Your task to perform on an android device: open chrome privacy settings Image 0: 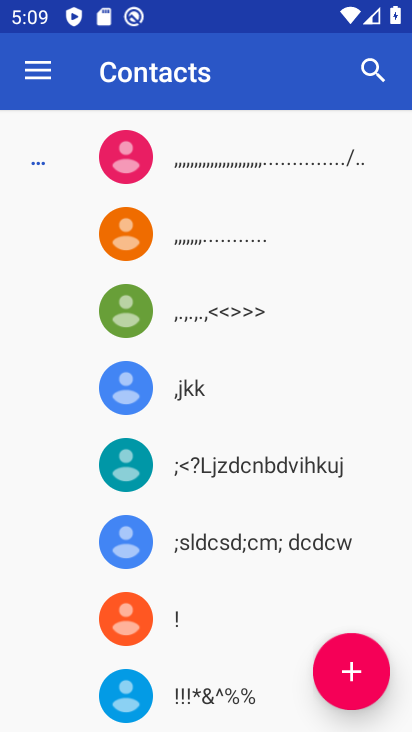
Step 0: press home button
Your task to perform on an android device: open chrome privacy settings Image 1: 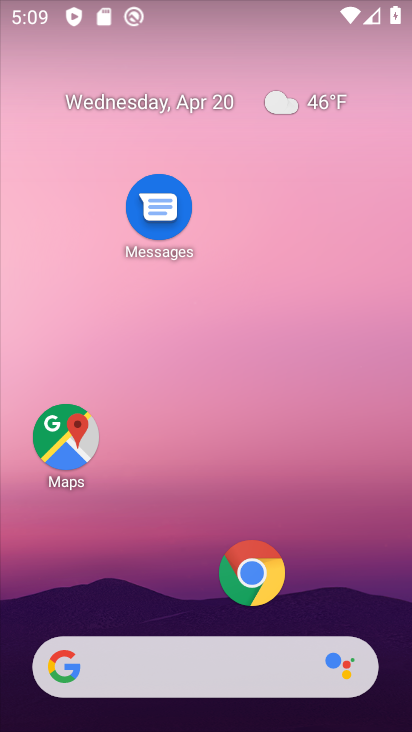
Step 1: click (236, 563)
Your task to perform on an android device: open chrome privacy settings Image 2: 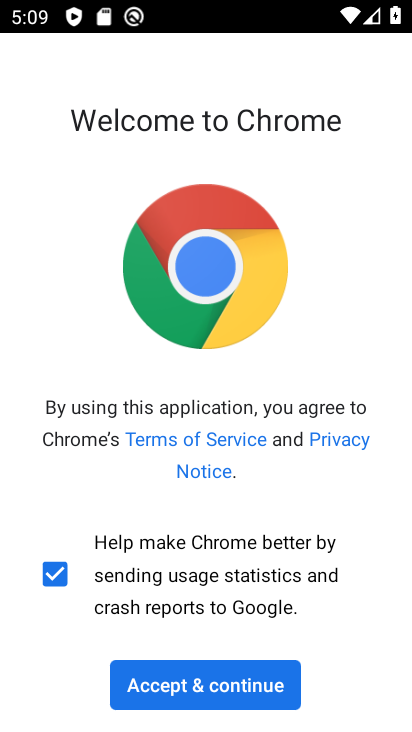
Step 2: click (233, 686)
Your task to perform on an android device: open chrome privacy settings Image 3: 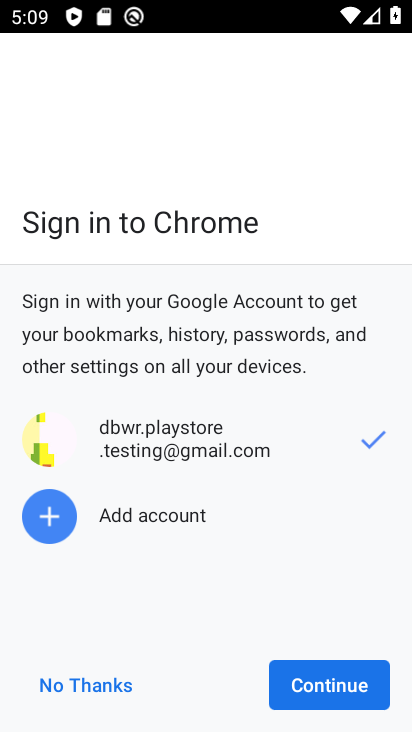
Step 3: click (343, 679)
Your task to perform on an android device: open chrome privacy settings Image 4: 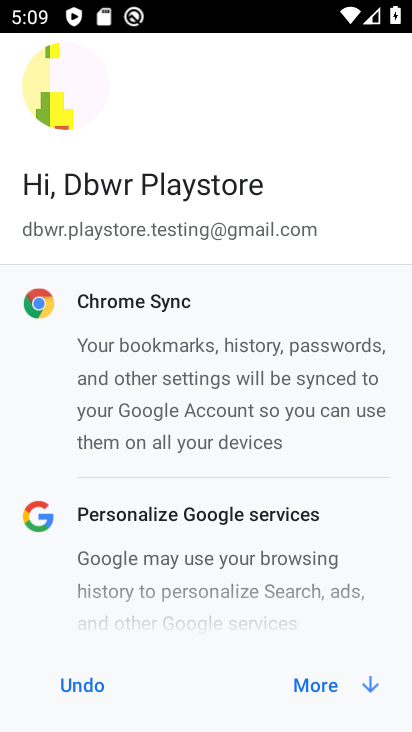
Step 4: click (333, 675)
Your task to perform on an android device: open chrome privacy settings Image 5: 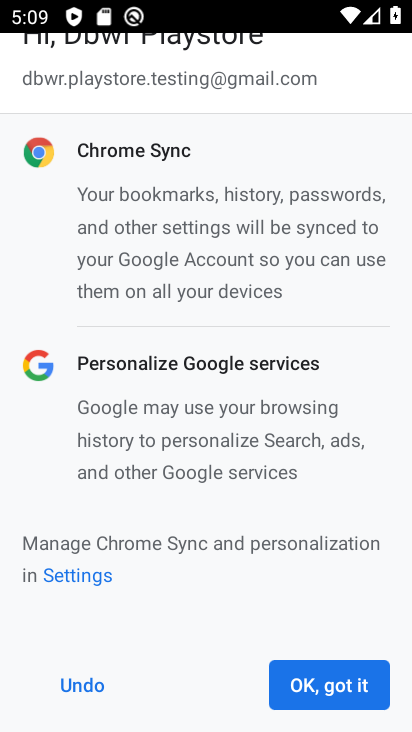
Step 5: click (341, 683)
Your task to perform on an android device: open chrome privacy settings Image 6: 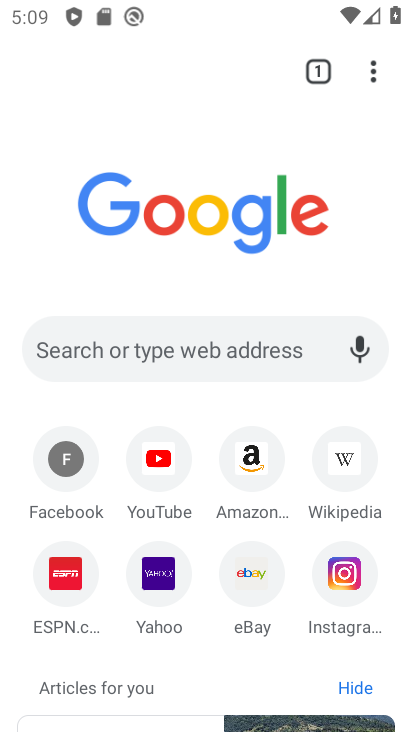
Step 6: click (369, 69)
Your task to perform on an android device: open chrome privacy settings Image 7: 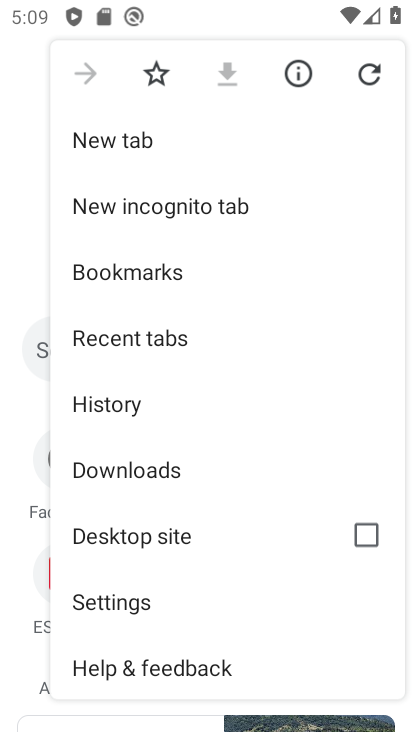
Step 7: click (167, 603)
Your task to perform on an android device: open chrome privacy settings Image 8: 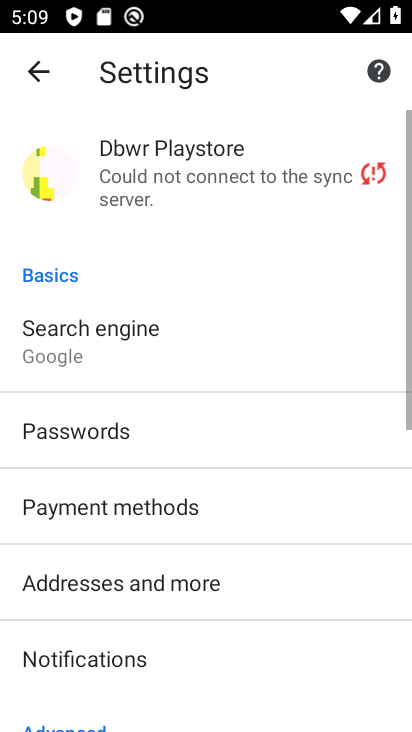
Step 8: drag from (242, 636) to (249, 207)
Your task to perform on an android device: open chrome privacy settings Image 9: 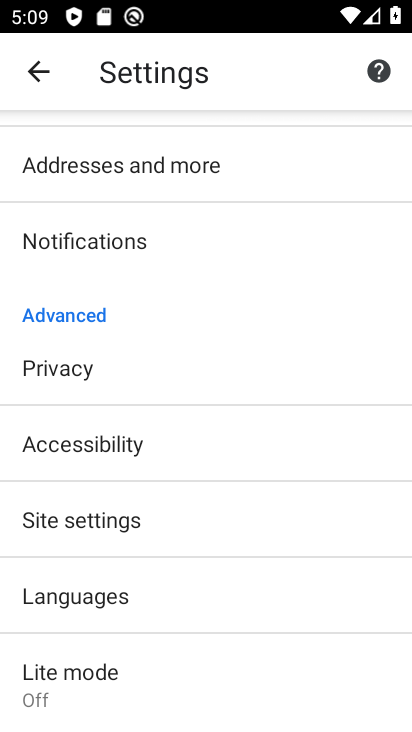
Step 9: drag from (150, 593) to (192, 345)
Your task to perform on an android device: open chrome privacy settings Image 10: 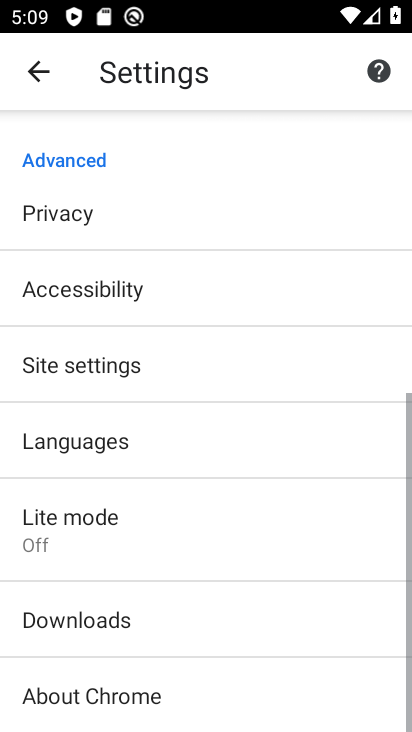
Step 10: click (160, 224)
Your task to perform on an android device: open chrome privacy settings Image 11: 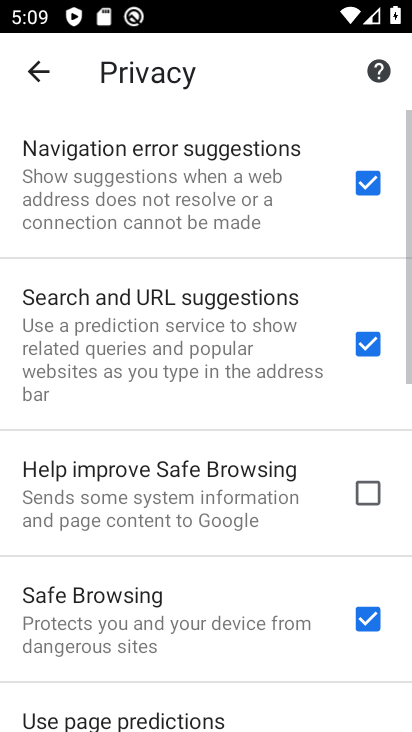
Step 11: task complete